Your task to perform on an android device: Go to Reddit.com Image 0: 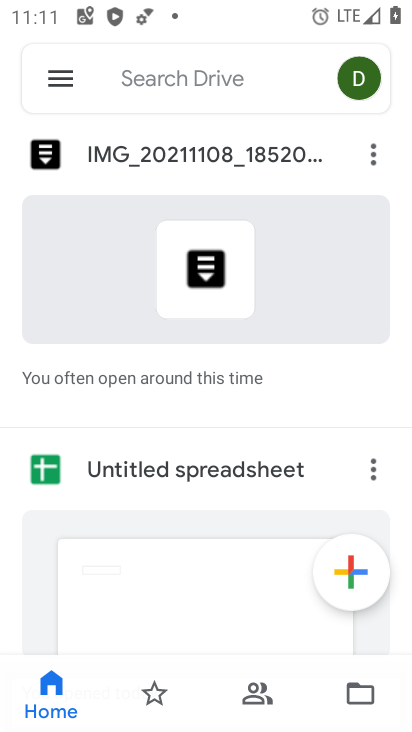
Step 0: press home button
Your task to perform on an android device: Go to Reddit.com Image 1: 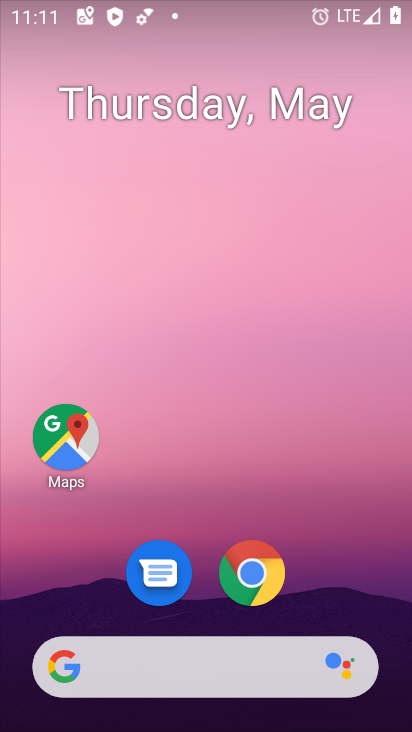
Step 1: click (232, 597)
Your task to perform on an android device: Go to Reddit.com Image 2: 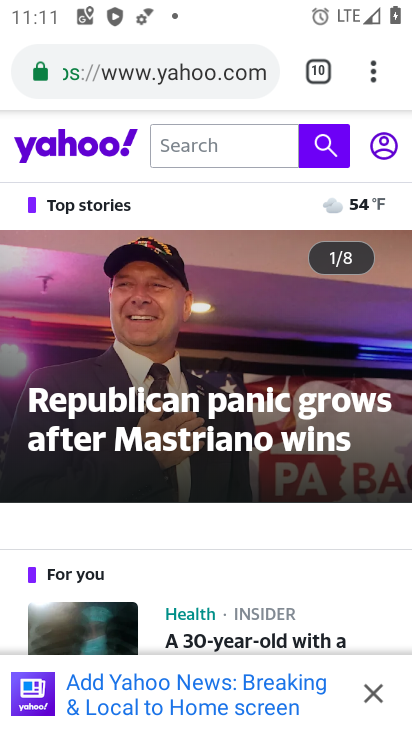
Step 2: click (312, 70)
Your task to perform on an android device: Go to Reddit.com Image 3: 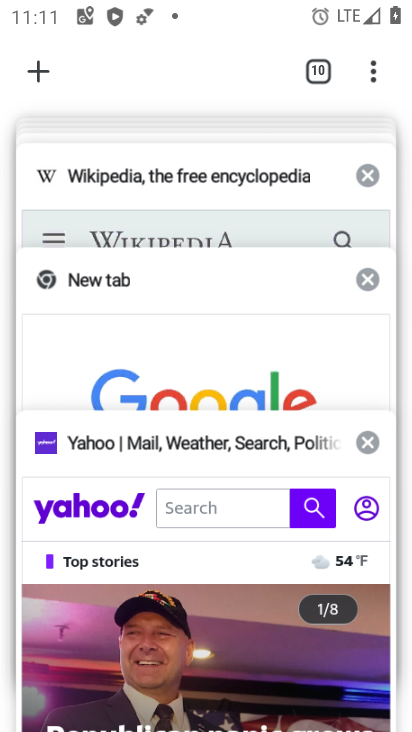
Step 3: click (36, 61)
Your task to perform on an android device: Go to Reddit.com Image 4: 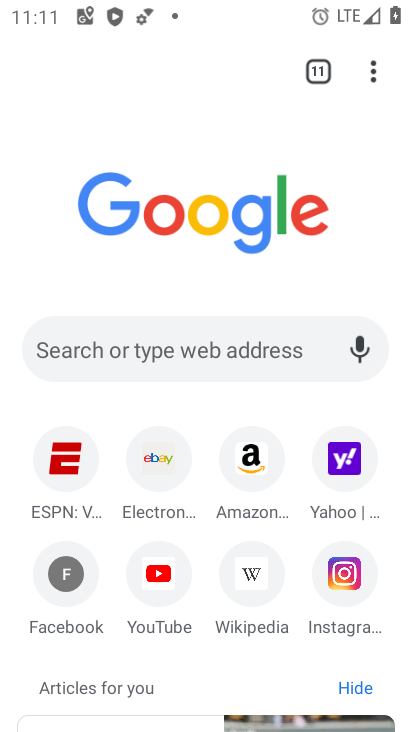
Step 4: type "Reddit.com"
Your task to perform on an android device: Go to Reddit.com Image 5: 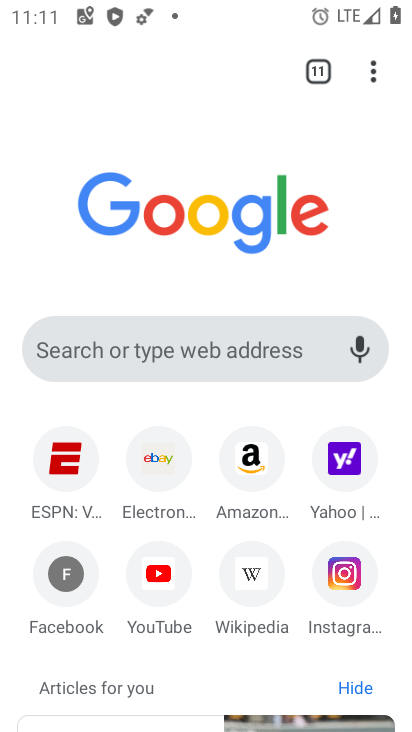
Step 5: click (193, 350)
Your task to perform on an android device: Go to Reddit.com Image 6: 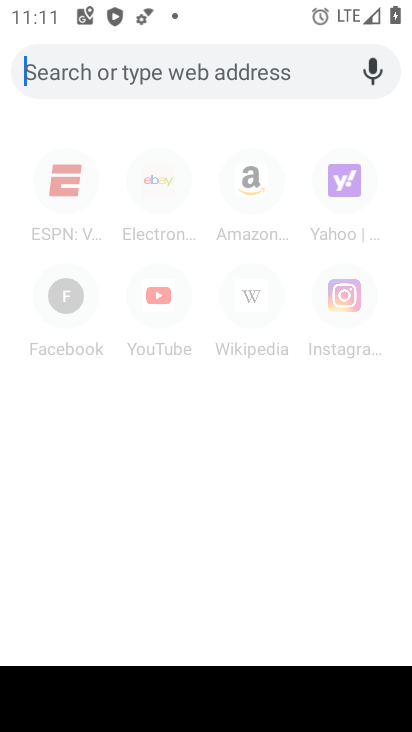
Step 6: type "Reddit.com"
Your task to perform on an android device: Go to Reddit.com Image 7: 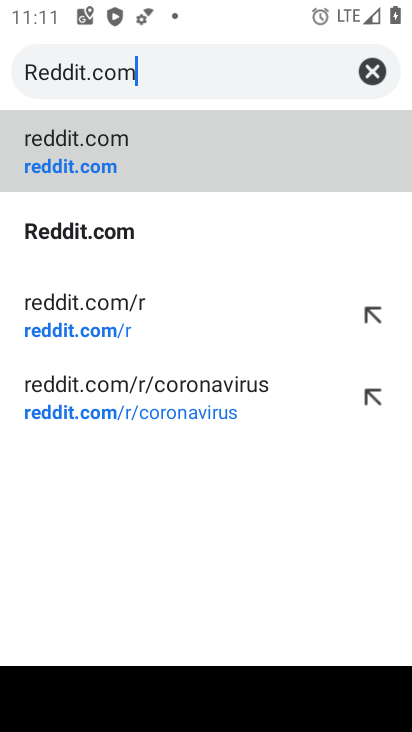
Step 7: click (275, 144)
Your task to perform on an android device: Go to Reddit.com Image 8: 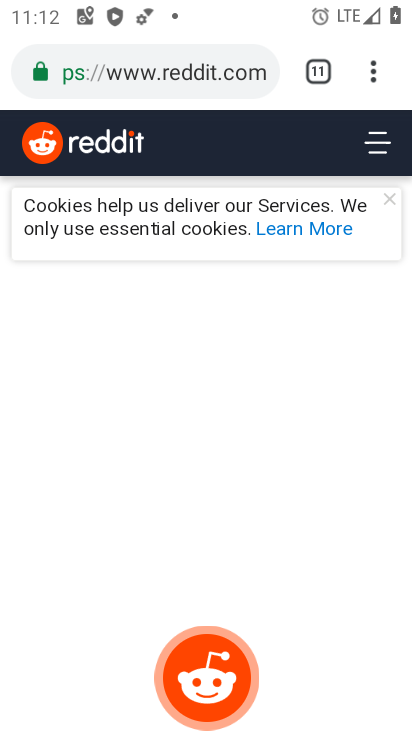
Step 8: task complete